Your task to perform on an android device: Show me recent news Image 0: 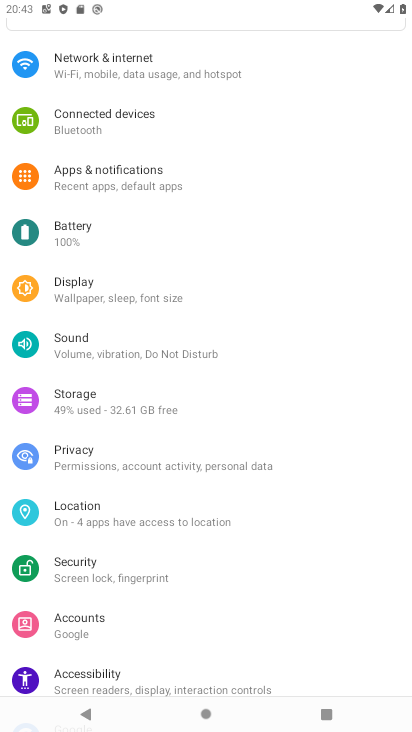
Step 0: press home button
Your task to perform on an android device: Show me recent news Image 1: 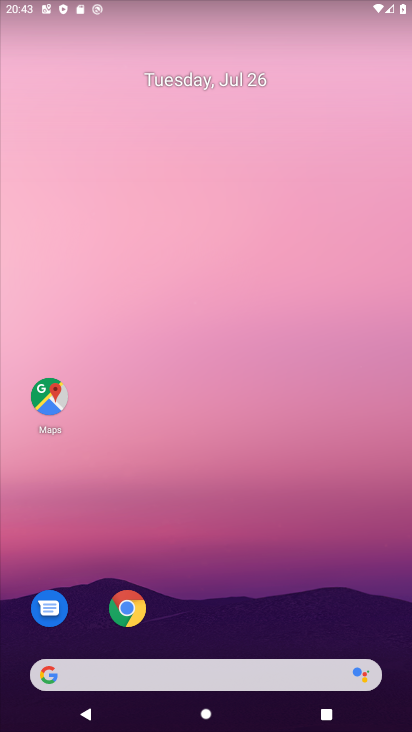
Step 1: click (65, 667)
Your task to perform on an android device: Show me recent news Image 2: 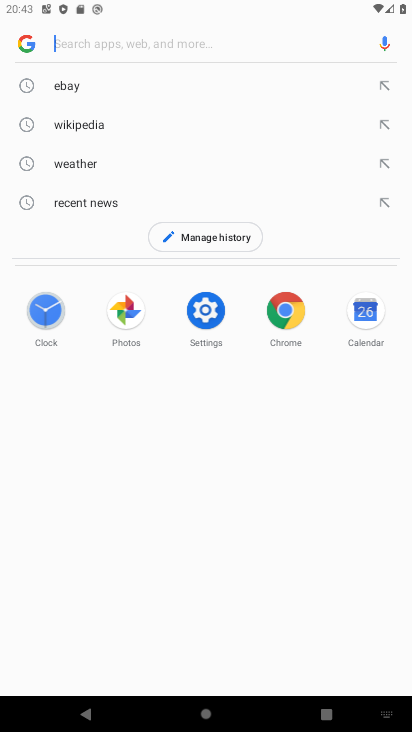
Step 2: click (76, 202)
Your task to perform on an android device: Show me recent news Image 3: 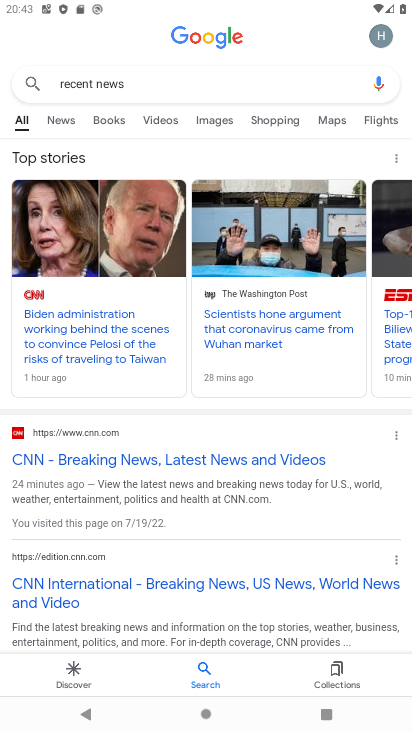
Step 3: task complete